Your task to perform on an android device: Open Amazon Image 0: 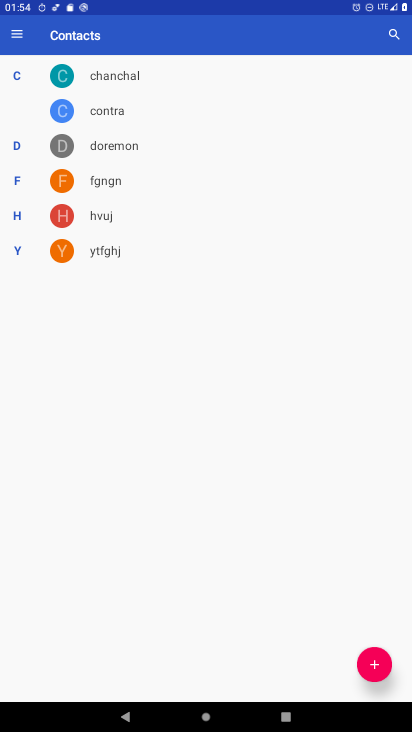
Step 0: press home button
Your task to perform on an android device: Open Amazon Image 1: 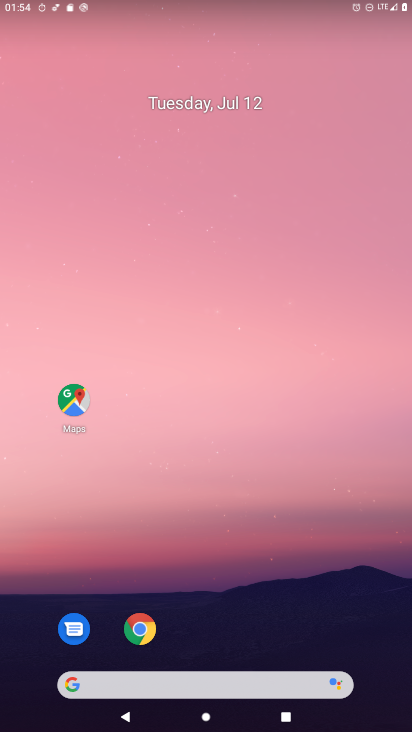
Step 1: click (103, 678)
Your task to perform on an android device: Open Amazon Image 2: 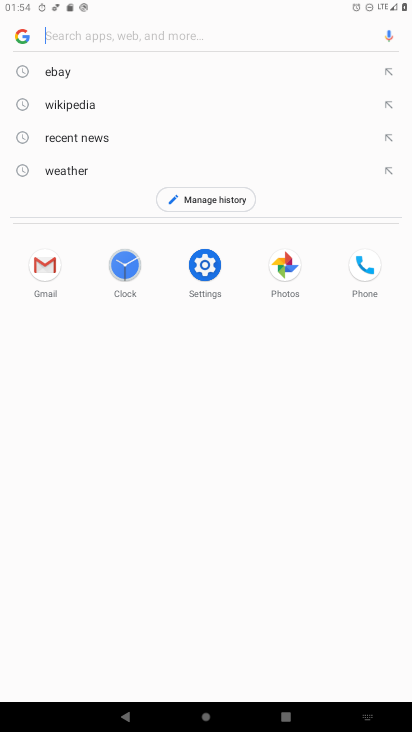
Step 2: type "Amazon"
Your task to perform on an android device: Open Amazon Image 3: 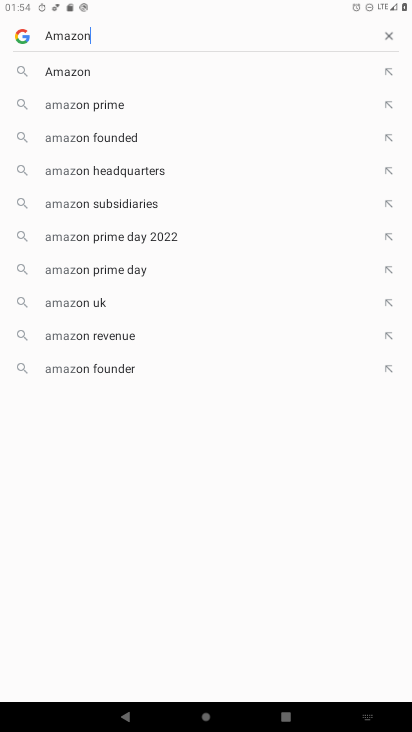
Step 3: type ""
Your task to perform on an android device: Open Amazon Image 4: 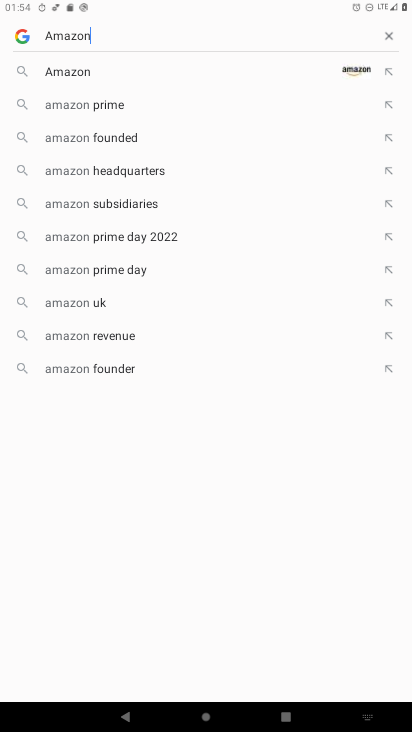
Step 4: click (47, 74)
Your task to perform on an android device: Open Amazon Image 5: 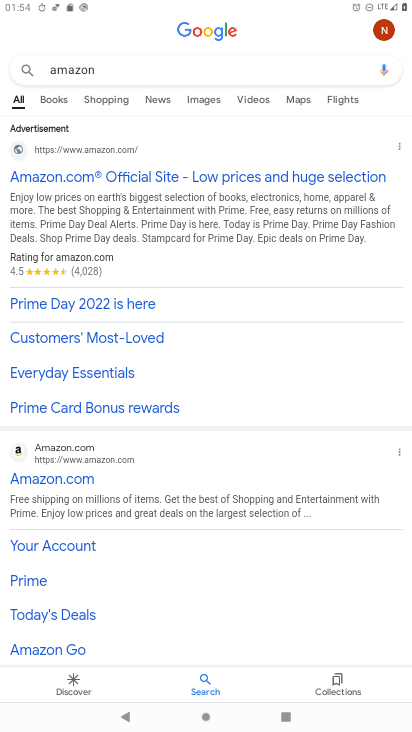
Step 5: task complete